Your task to perform on an android device: set an alarm Image 0: 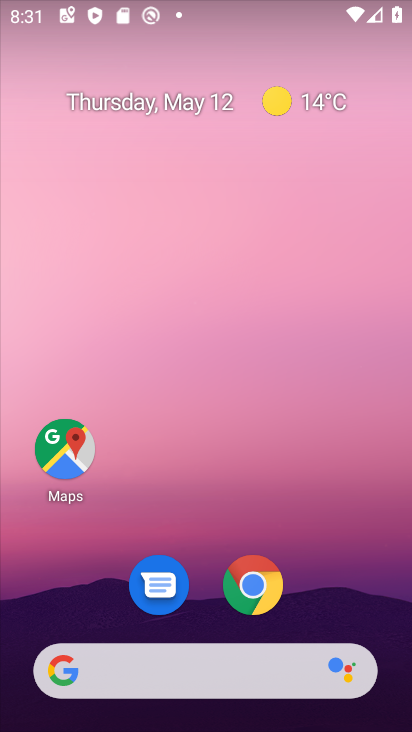
Step 0: drag from (289, 449) to (152, 30)
Your task to perform on an android device: set an alarm Image 1: 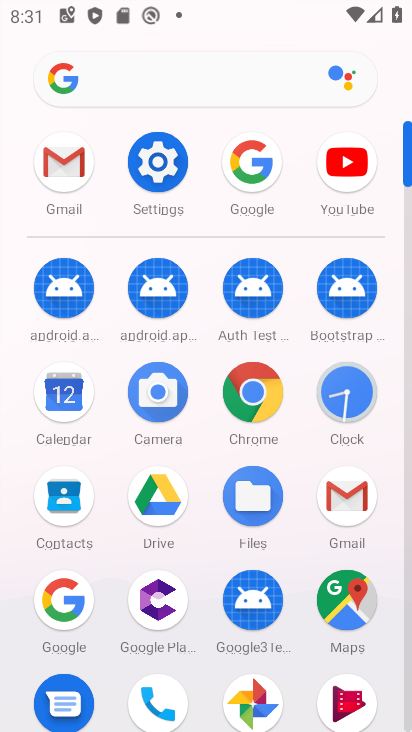
Step 1: click (361, 403)
Your task to perform on an android device: set an alarm Image 2: 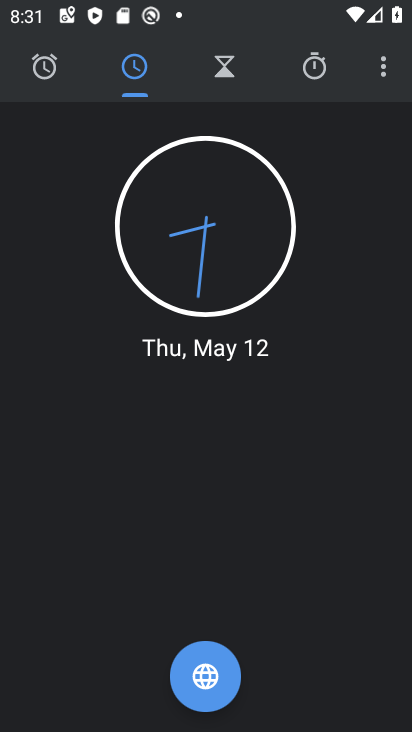
Step 2: click (35, 65)
Your task to perform on an android device: set an alarm Image 3: 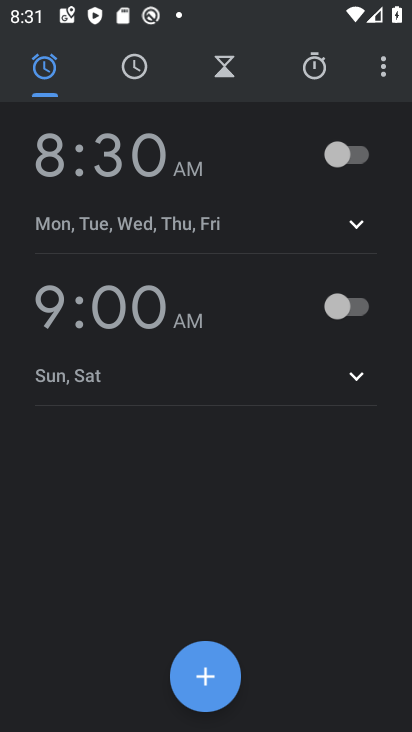
Step 3: click (214, 699)
Your task to perform on an android device: set an alarm Image 4: 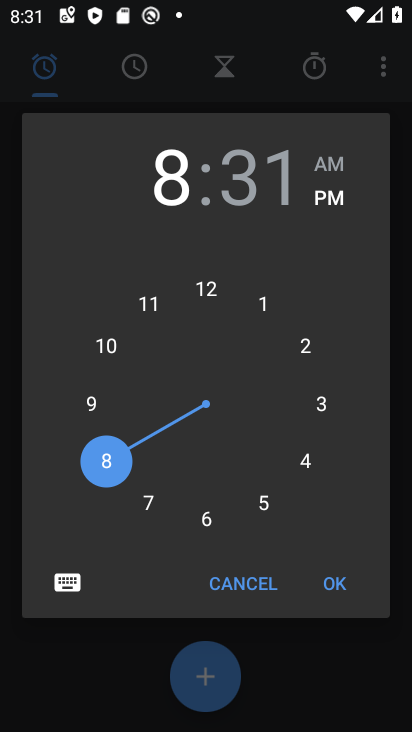
Step 4: click (246, 190)
Your task to perform on an android device: set an alarm Image 5: 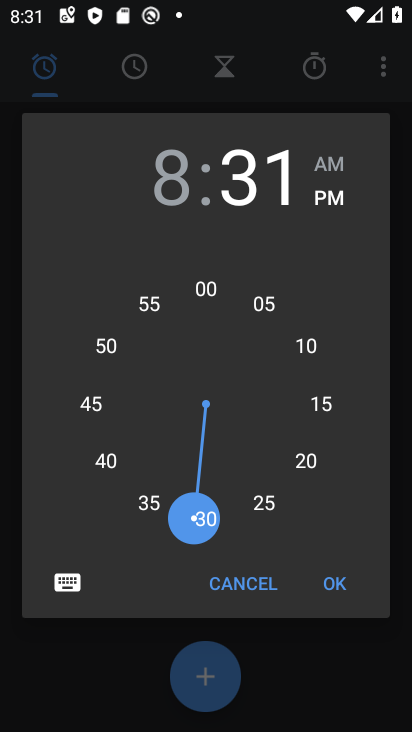
Step 5: click (213, 292)
Your task to perform on an android device: set an alarm Image 6: 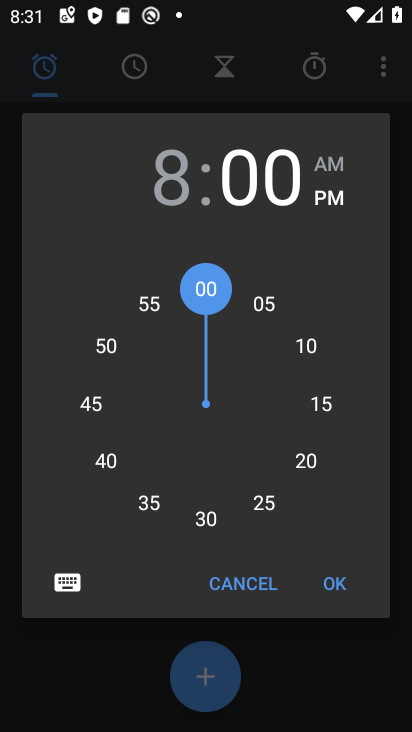
Step 6: click (328, 576)
Your task to perform on an android device: set an alarm Image 7: 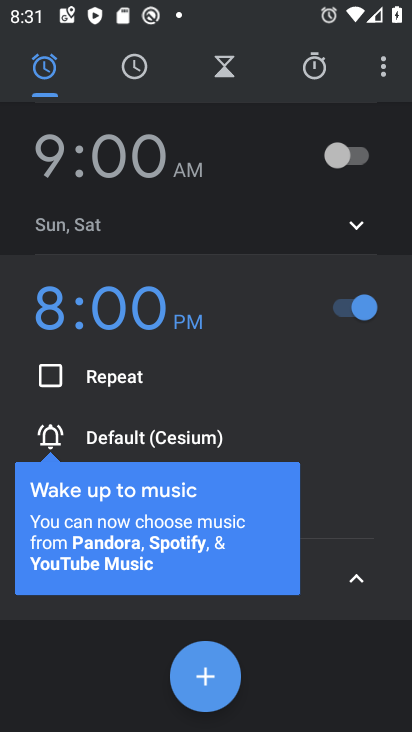
Step 7: task complete